Your task to perform on an android device: toggle javascript in the chrome app Image 0: 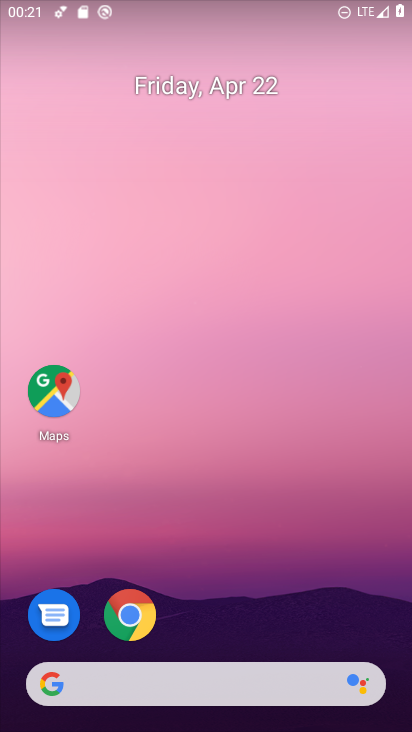
Step 0: drag from (217, 649) to (182, 121)
Your task to perform on an android device: toggle javascript in the chrome app Image 1: 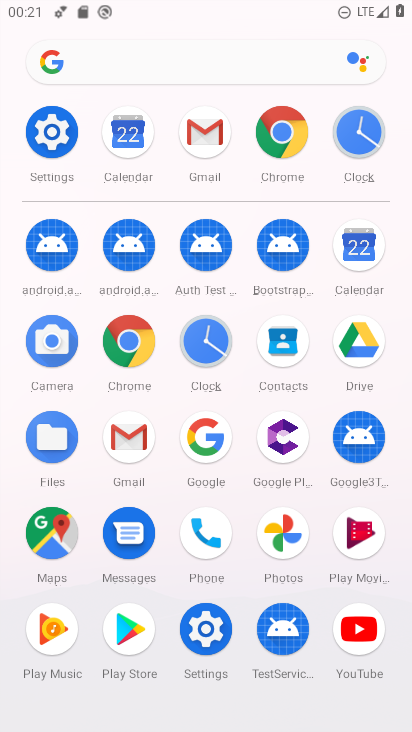
Step 1: click (126, 338)
Your task to perform on an android device: toggle javascript in the chrome app Image 2: 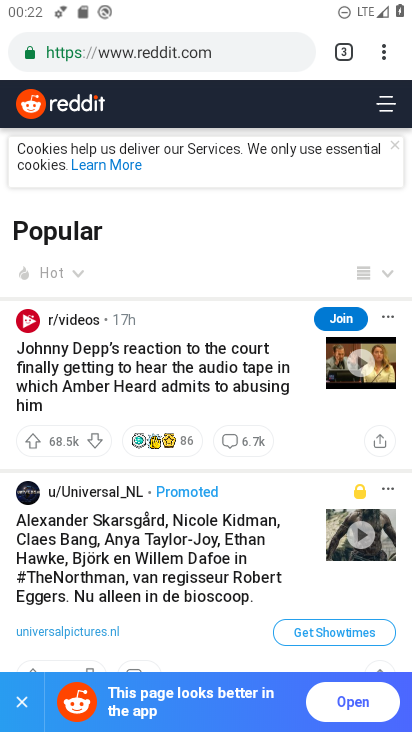
Step 2: click (345, 48)
Your task to perform on an android device: toggle javascript in the chrome app Image 3: 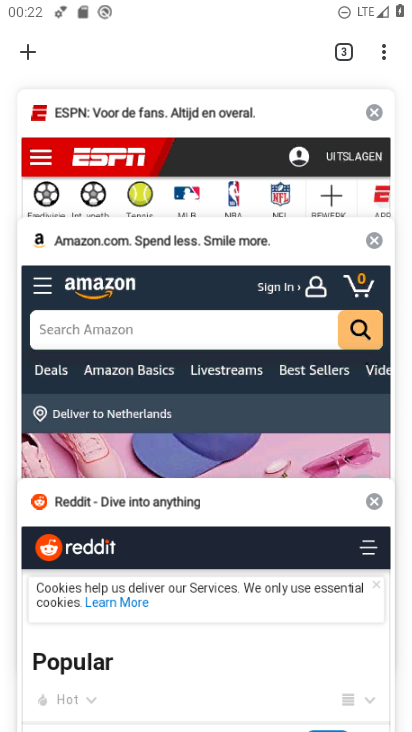
Step 3: click (375, 108)
Your task to perform on an android device: toggle javascript in the chrome app Image 4: 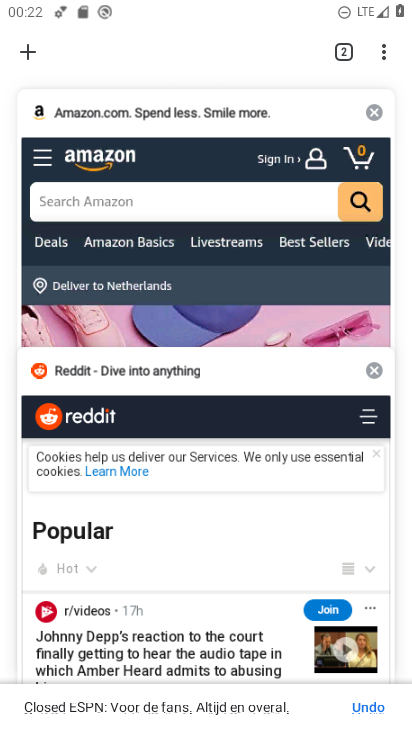
Step 4: click (375, 108)
Your task to perform on an android device: toggle javascript in the chrome app Image 5: 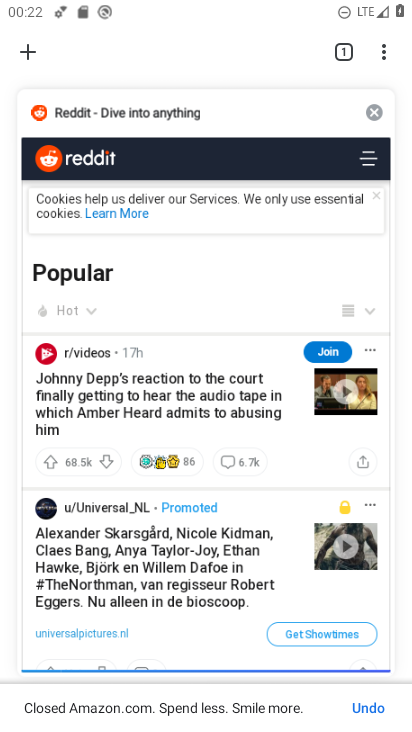
Step 5: click (375, 108)
Your task to perform on an android device: toggle javascript in the chrome app Image 6: 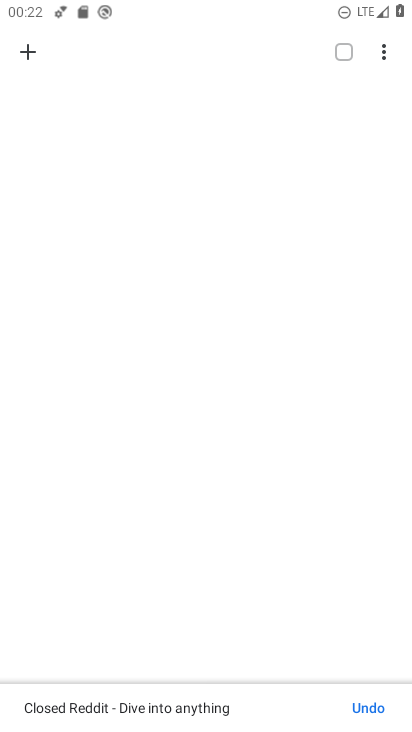
Step 6: click (31, 51)
Your task to perform on an android device: toggle javascript in the chrome app Image 7: 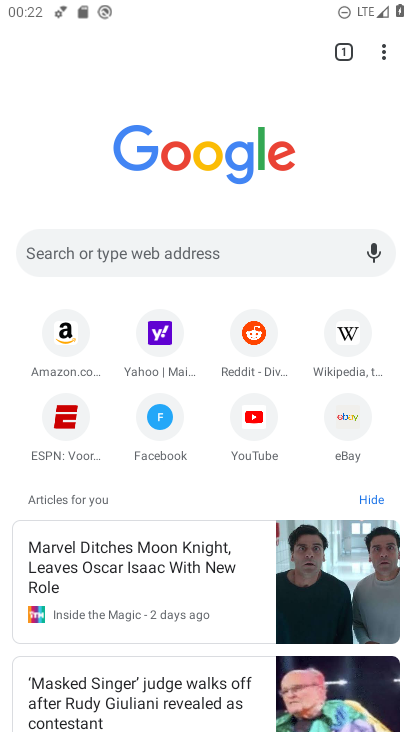
Step 7: click (385, 49)
Your task to perform on an android device: toggle javascript in the chrome app Image 8: 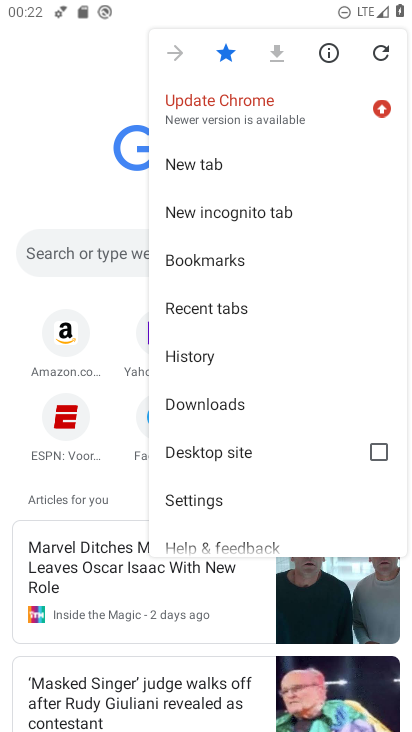
Step 8: click (241, 497)
Your task to perform on an android device: toggle javascript in the chrome app Image 9: 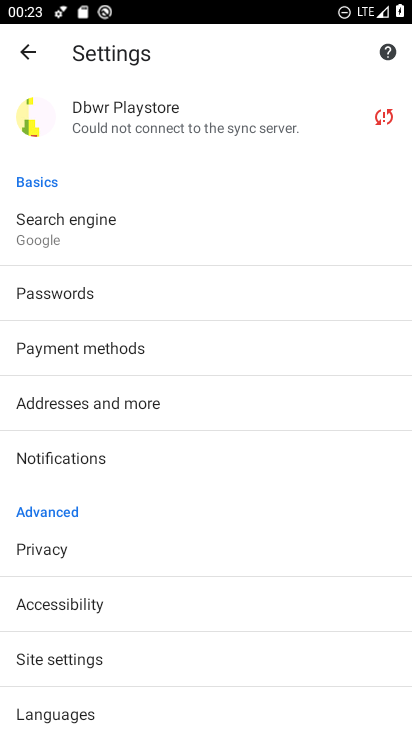
Step 9: click (149, 656)
Your task to perform on an android device: toggle javascript in the chrome app Image 10: 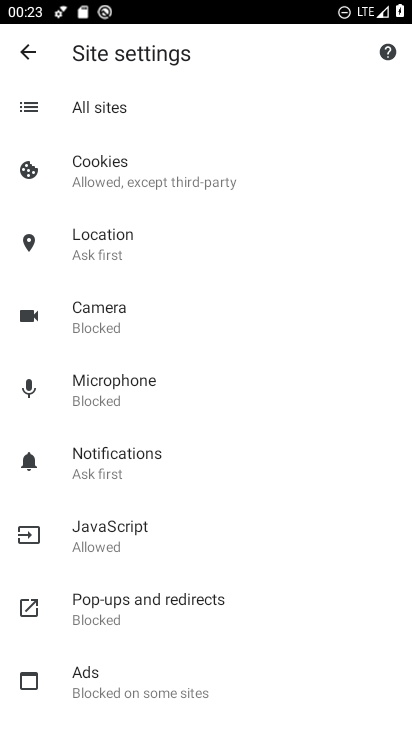
Step 10: click (145, 537)
Your task to perform on an android device: toggle javascript in the chrome app Image 11: 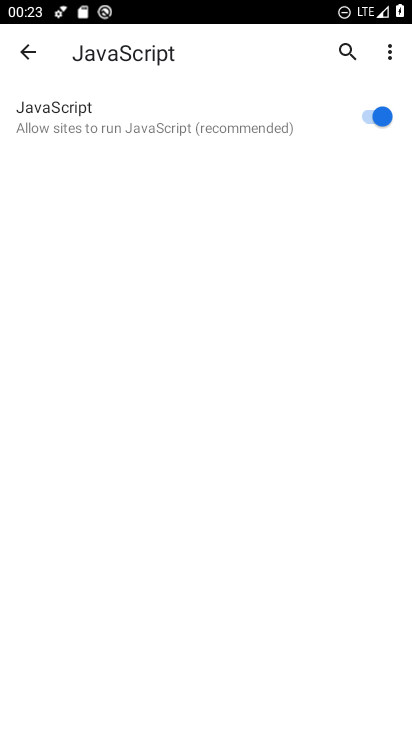
Step 11: click (370, 107)
Your task to perform on an android device: toggle javascript in the chrome app Image 12: 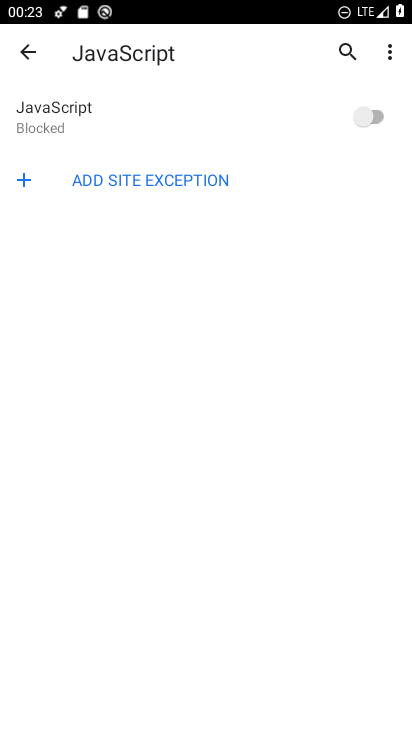
Step 12: task complete